Your task to perform on an android device: What's on the menu at IHOP? Image 0: 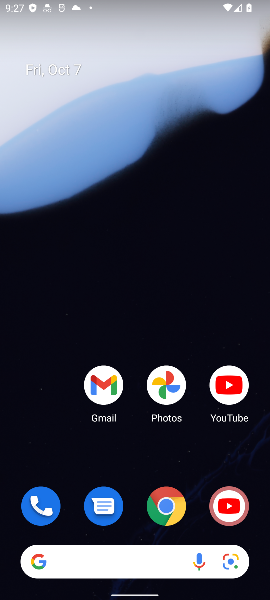
Step 0: click (162, 507)
Your task to perform on an android device: What's on the menu at IHOP? Image 1: 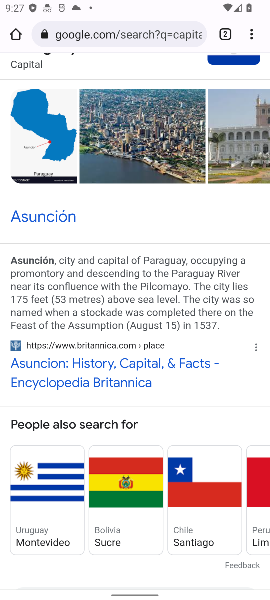
Step 1: click (119, 31)
Your task to perform on an android device: What's on the menu at IHOP? Image 2: 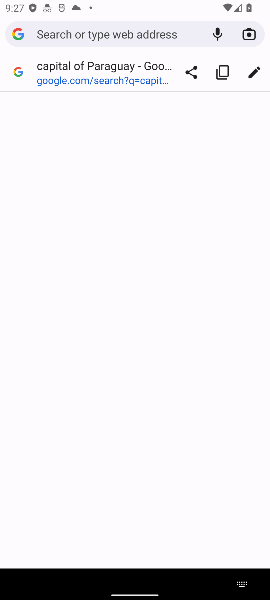
Step 2: type "menu at IHOP"
Your task to perform on an android device: What's on the menu at IHOP? Image 3: 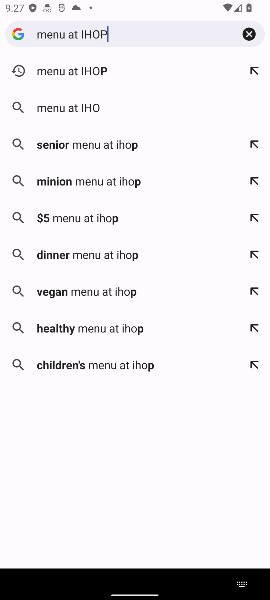
Step 3: press enter
Your task to perform on an android device: What's on the menu at IHOP? Image 4: 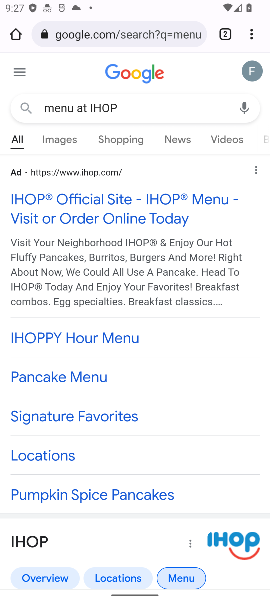
Step 4: drag from (111, 426) to (187, 176)
Your task to perform on an android device: What's on the menu at IHOP? Image 5: 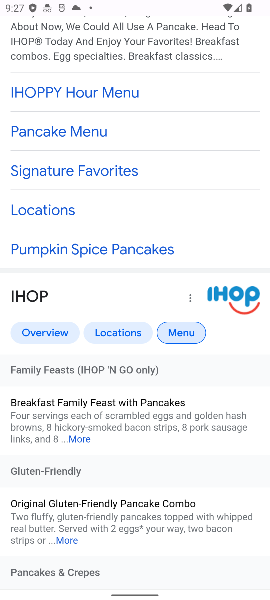
Step 5: click (175, 335)
Your task to perform on an android device: What's on the menu at IHOP? Image 6: 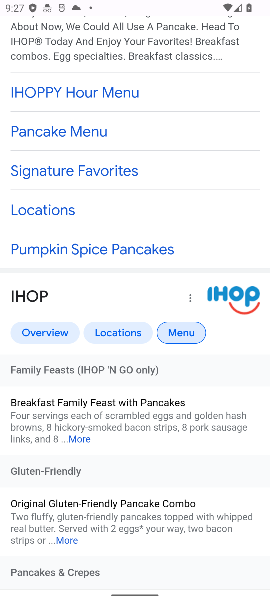
Step 6: click (181, 328)
Your task to perform on an android device: What's on the menu at IHOP? Image 7: 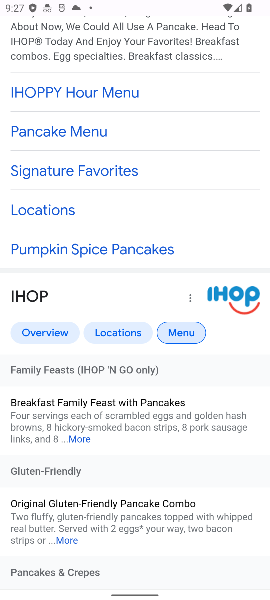
Step 7: drag from (118, 446) to (222, 122)
Your task to perform on an android device: What's on the menu at IHOP? Image 8: 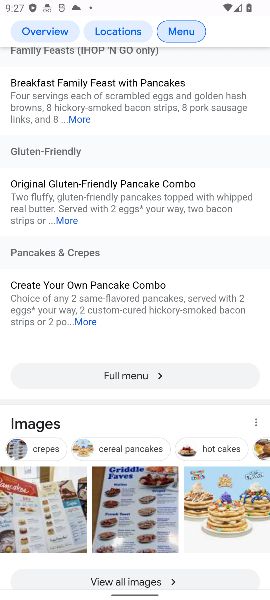
Step 8: click (139, 374)
Your task to perform on an android device: What's on the menu at IHOP? Image 9: 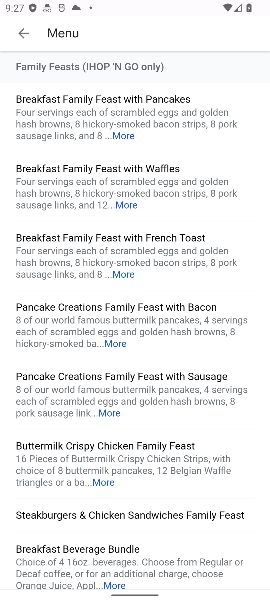
Step 9: task complete